Your task to perform on an android device: Open Maps and search for coffee Image 0: 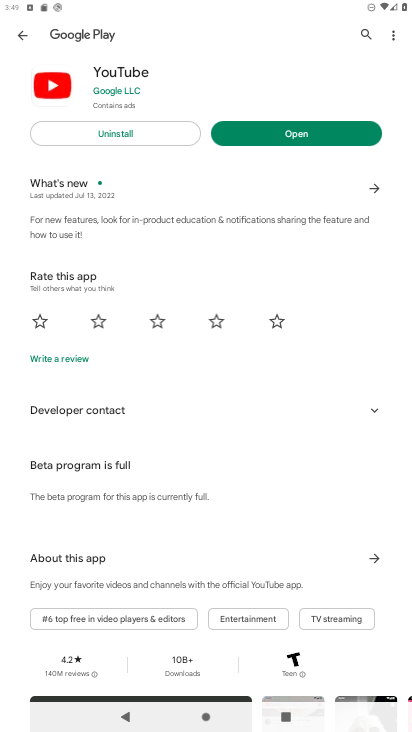
Step 0: press home button
Your task to perform on an android device: Open Maps and search for coffee Image 1: 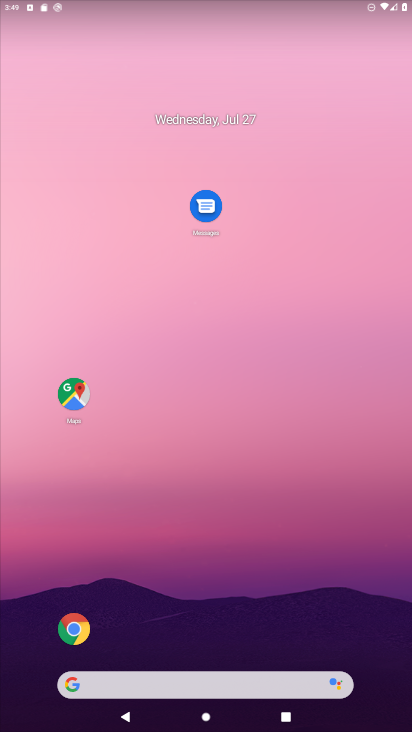
Step 1: click (81, 397)
Your task to perform on an android device: Open Maps and search for coffee Image 2: 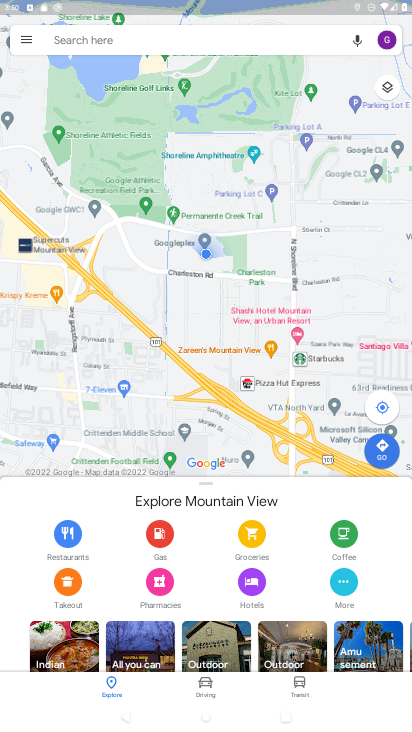
Step 2: click (91, 37)
Your task to perform on an android device: Open Maps and search for coffee Image 3: 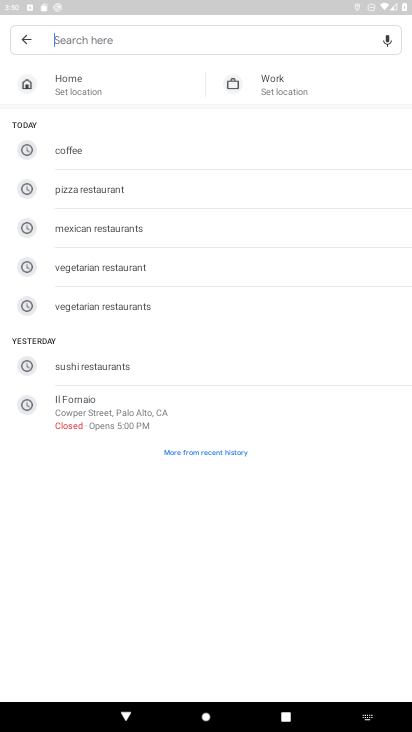
Step 3: click (74, 158)
Your task to perform on an android device: Open Maps and search for coffee Image 4: 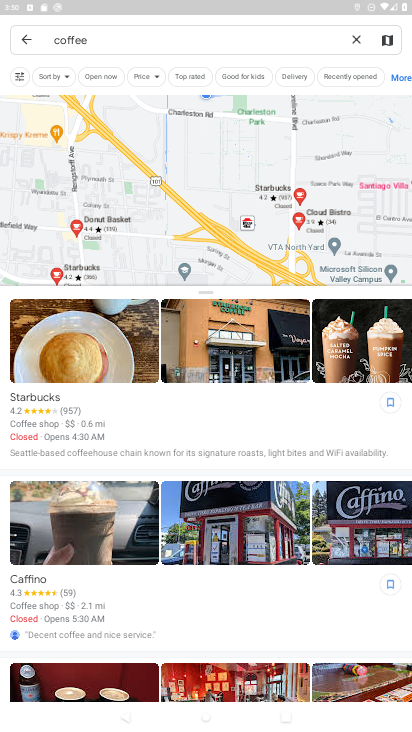
Step 4: task complete